Your task to perform on an android device: Set the phone to "Do not disturb". Image 0: 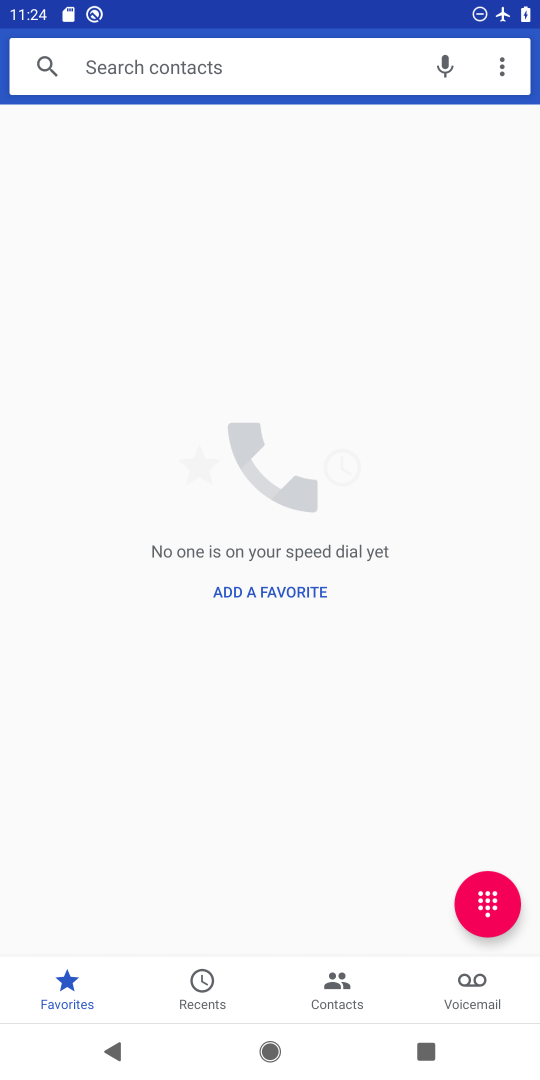
Step 0: drag from (245, 29) to (240, 790)
Your task to perform on an android device: Set the phone to "Do not disturb". Image 1: 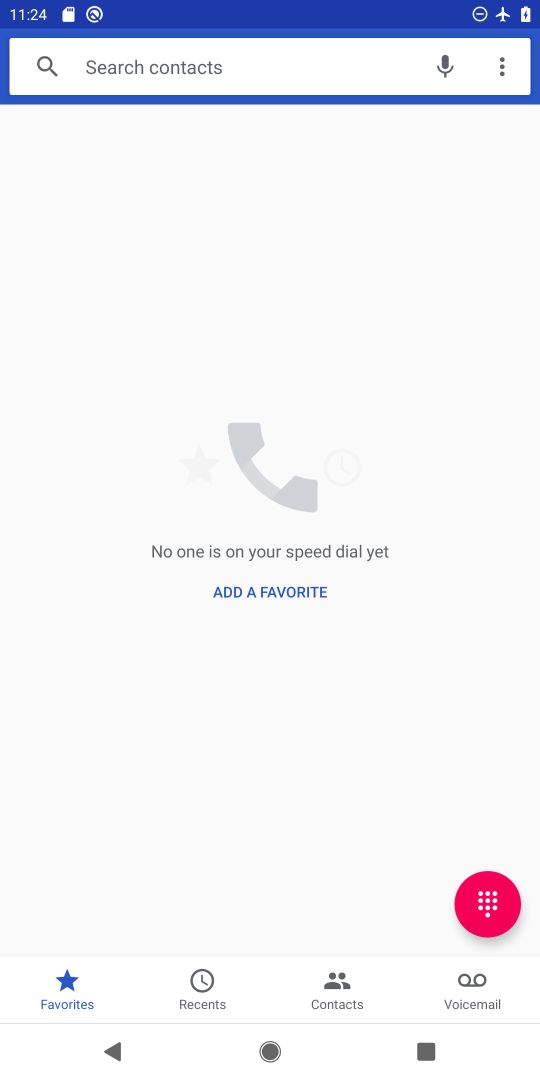
Step 1: drag from (202, 1) to (209, 770)
Your task to perform on an android device: Set the phone to "Do not disturb". Image 2: 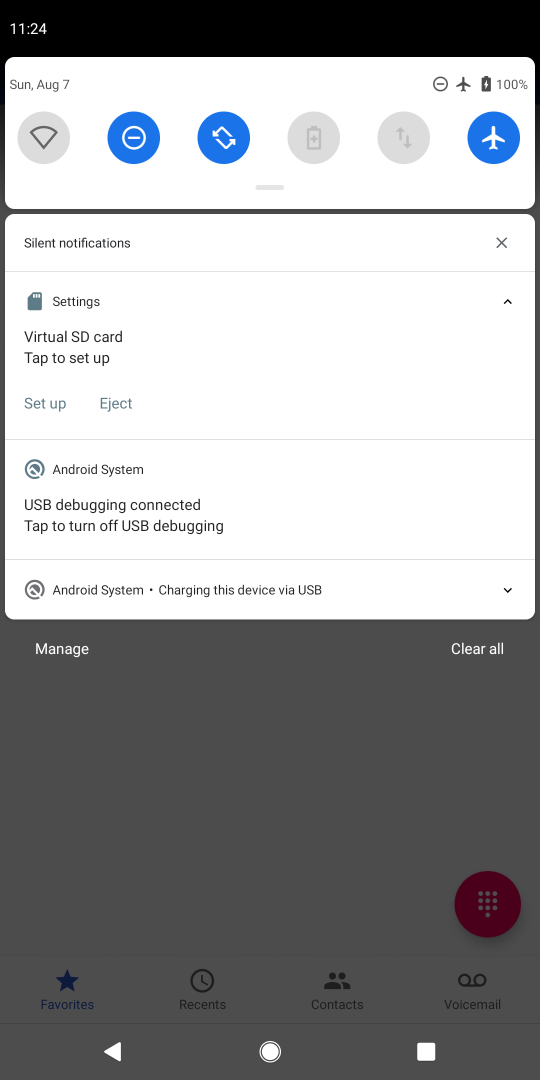
Step 2: click (132, 141)
Your task to perform on an android device: Set the phone to "Do not disturb". Image 3: 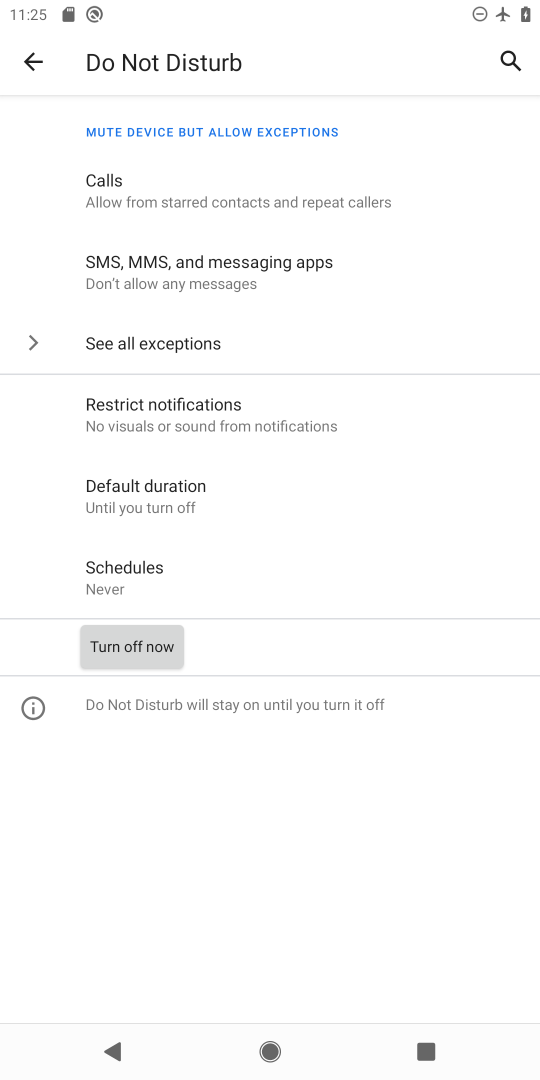
Step 3: click (168, 646)
Your task to perform on an android device: Set the phone to "Do not disturb". Image 4: 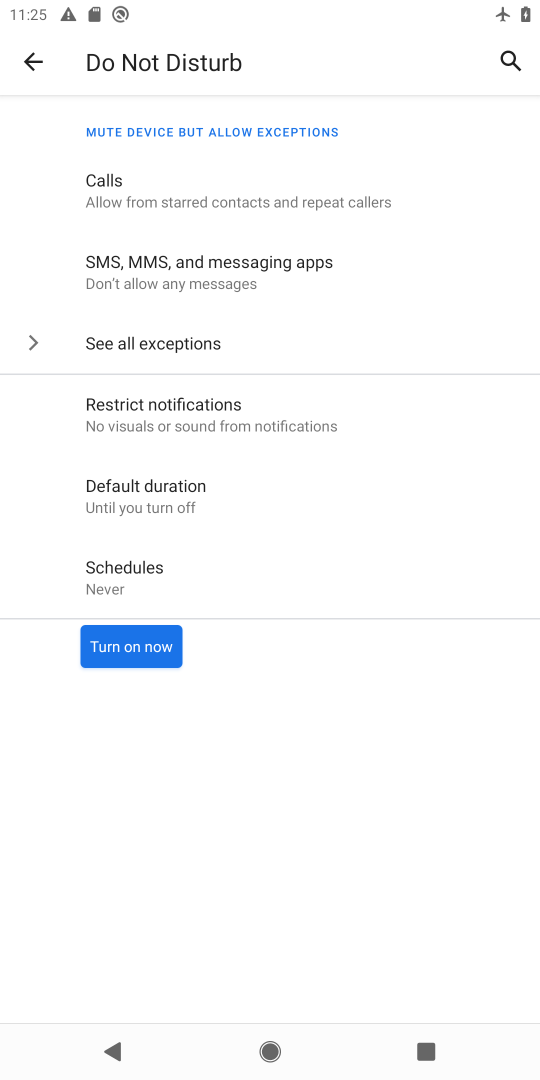
Step 4: click (150, 643)
Your task to perform on an android device: Set the phone to "Do not disturb". Image 5: 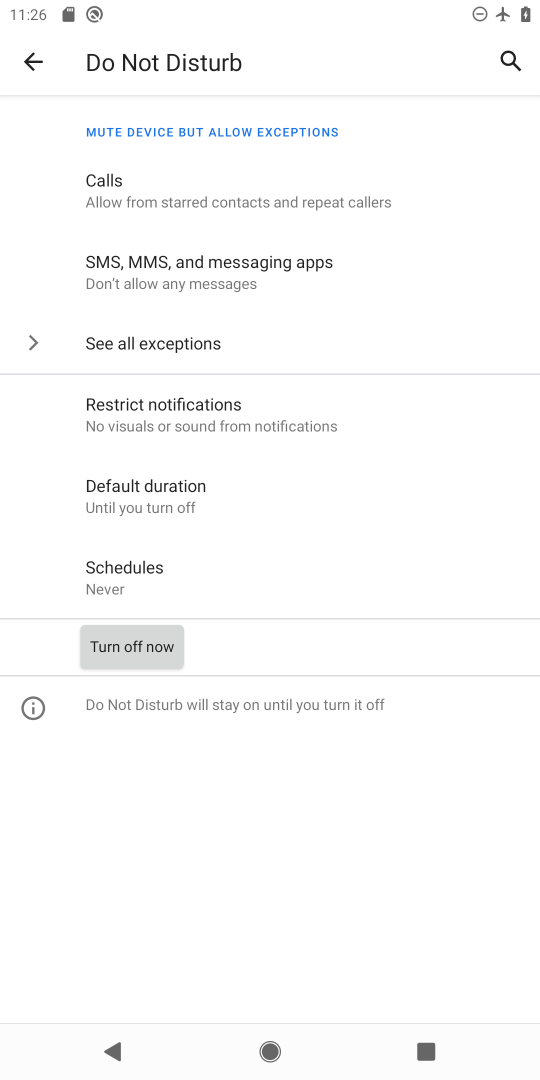
Step 5: task complete